Your task to perform on an android device: Search for seafood restaurants on Google Maps Image 0: 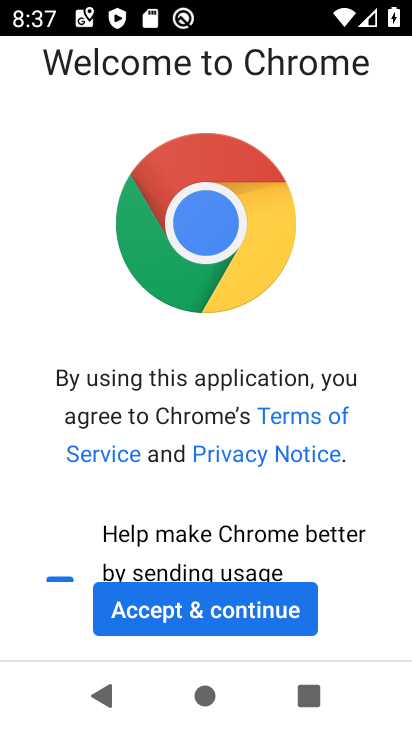
Step 0: press back button
Your task to perform on an android device: Search for seafood restaurants on Google Maps Image 1: 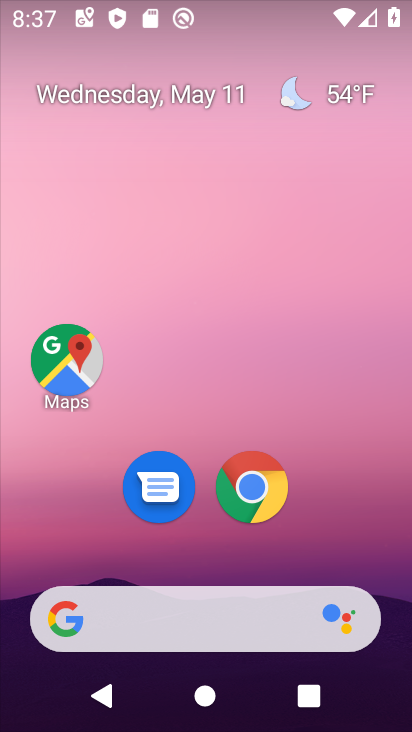
Step 1: click (62, 394)
Your task to perform on an android device: Search for seafood restaurants on Google Maps Image 2: 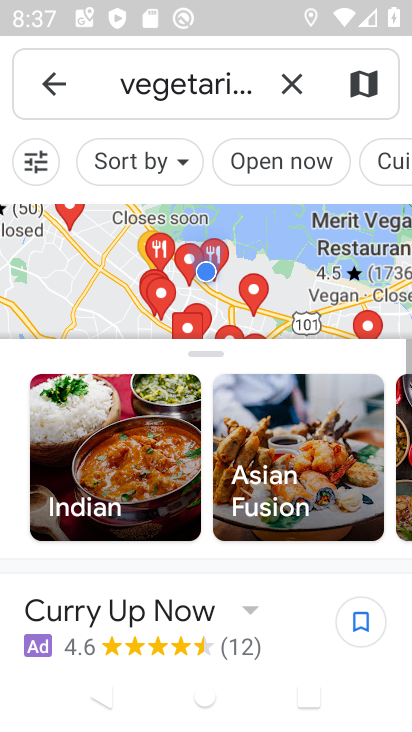
Step 2: click (284, 80)
Your task to perform on an android device: Search for seafood restaurants on Google Maps Image 3: 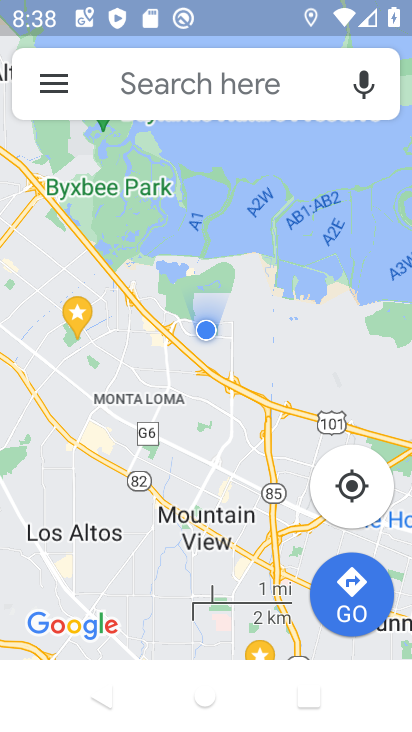
Step 3: click (217, 94)
Your task to perform on an android device: Search for seafood restaurants on Google Maps Image 4: 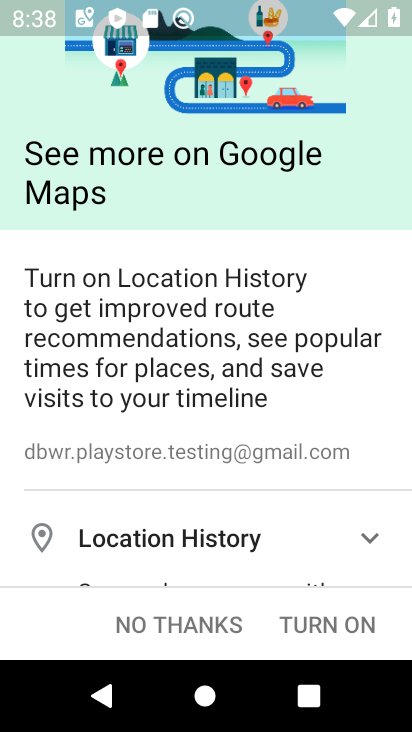
Step 4: click (133, 628)
Your task to perform on an android device: Search for seafood restaurants on Google Maps Image 5: 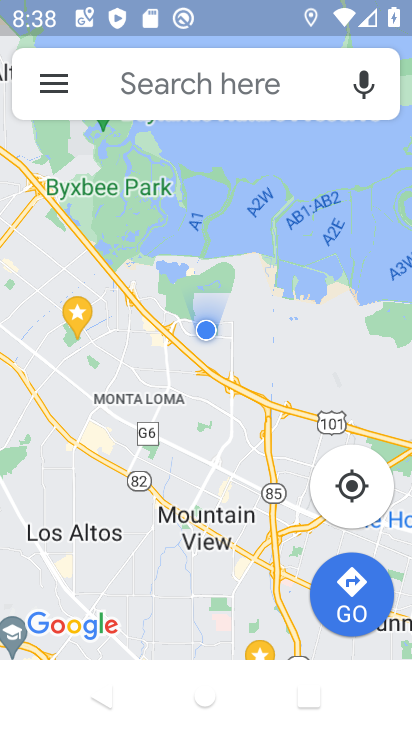
Step 5: click (140, 75)
Your task to perform on an android device: Search for seafood restaurants on Google Maps Image 6: 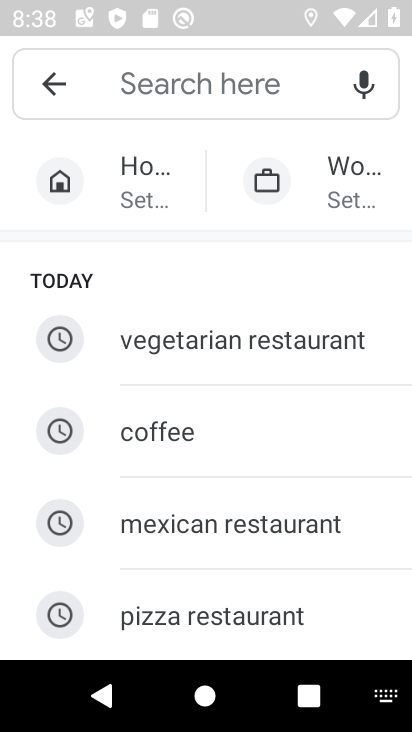
Step 6: type "Seafood restaurants"
Your task to perform on an android device: Search for seafood restaurants on Google Maps Image 7: 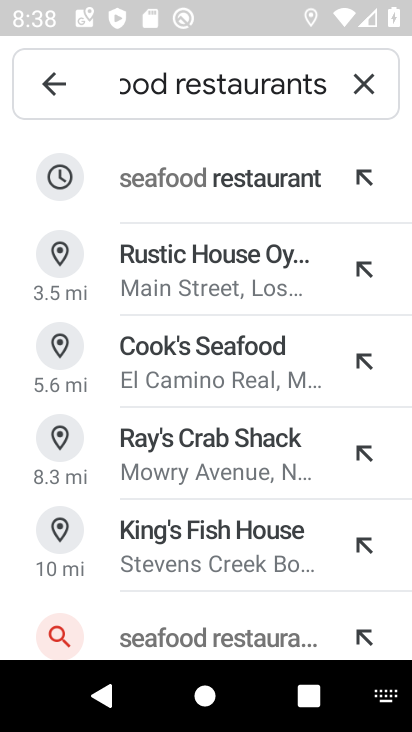
Step 7: click (223, 188)
Your task to perform on an android device: Search for seafood restaurants on Google Maps Image 8: 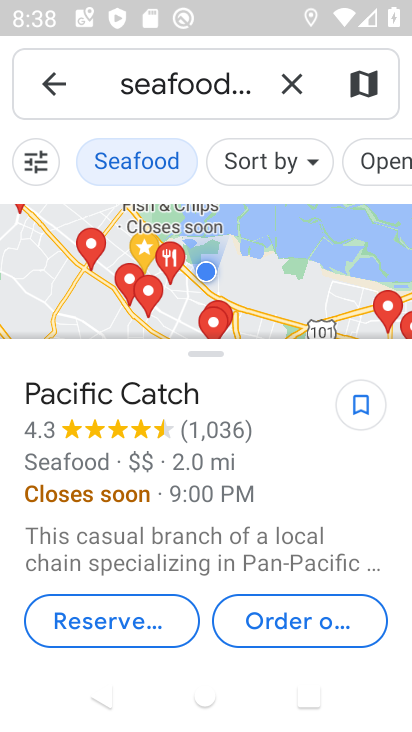
Step 8: task complete